Your task to perform on an android device: see sites visited before in the chrome app Image 0: 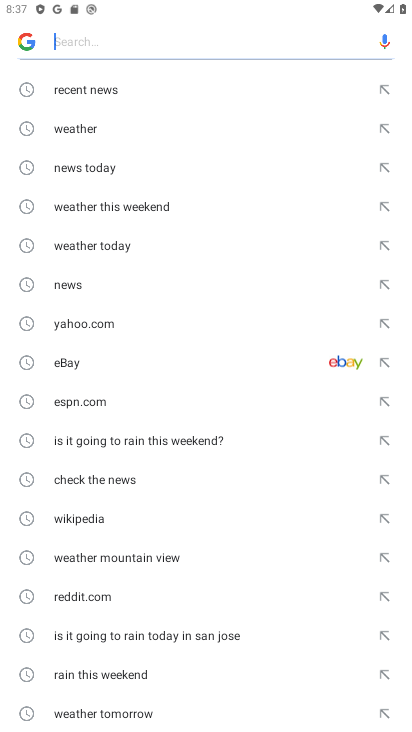
Step 0: drag from (218, 646) to (203, 263)
Your task to perform on an android device: see sites visited before in the chrome app Image 1: 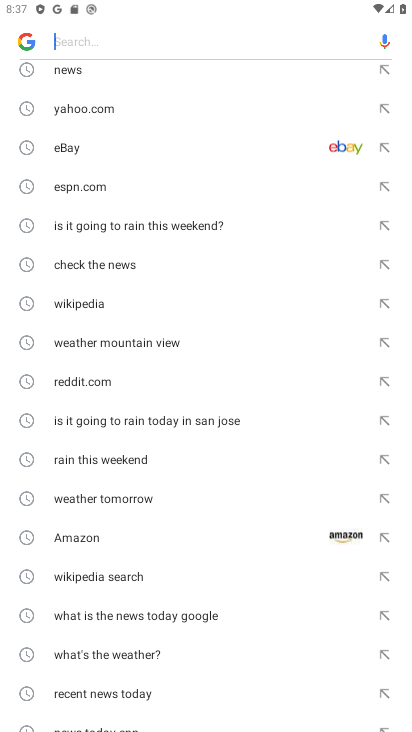
Step 1: press home button
Your task to perform on an android device: see sites visited before in the chrome app Image 2: 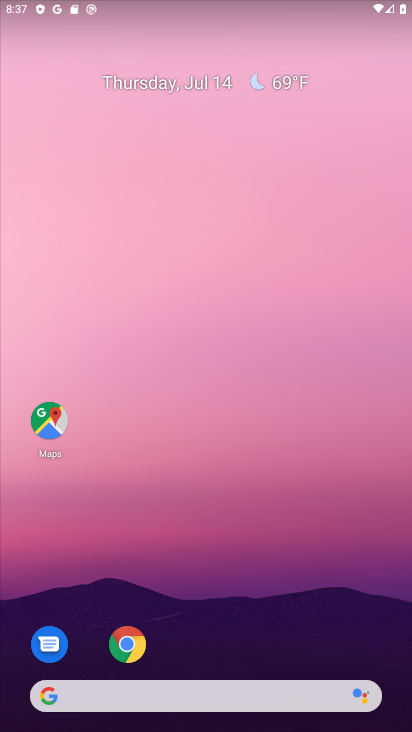
Step 2: click (123, 649)
Your task to perform on an android device: see sites visited before in the chrome app Image 3: 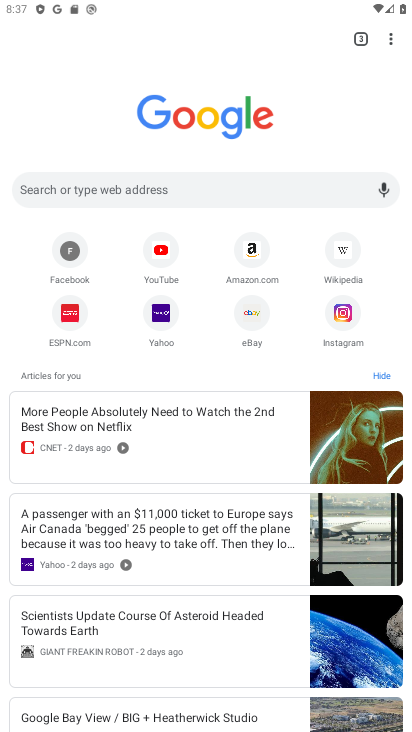
Step 3: click (397, 46)
Your task to perform on an android device: see sites visited before in the chrome app Image 4: 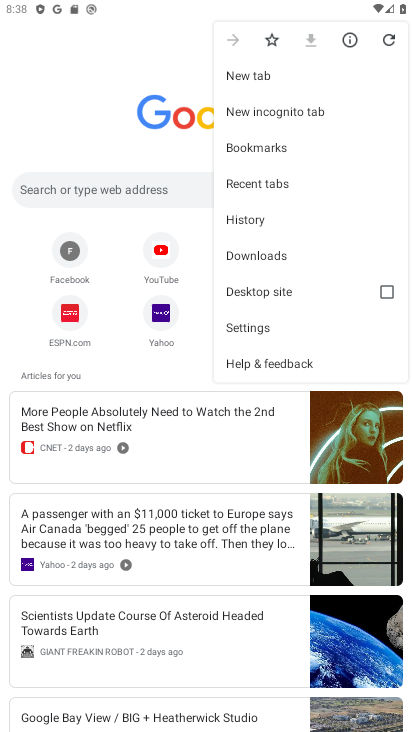
Step 4: click (309, 192)
Your task to perform on an android device: see sites visited before in the chrome app Image 5: 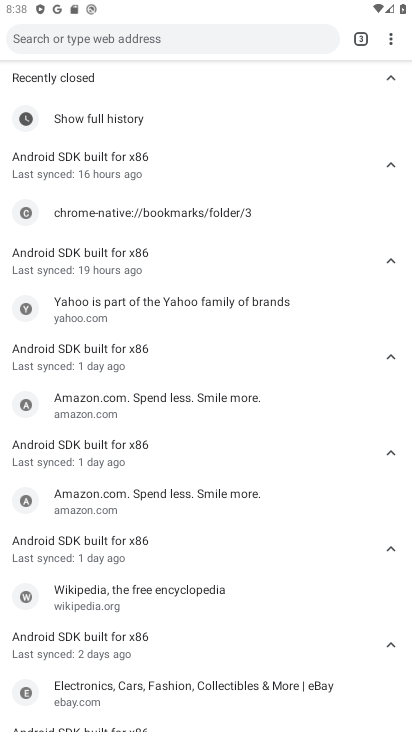
Step 5: task complete